Your task to perform on an android device: change your default location settings in chrome Image 0: 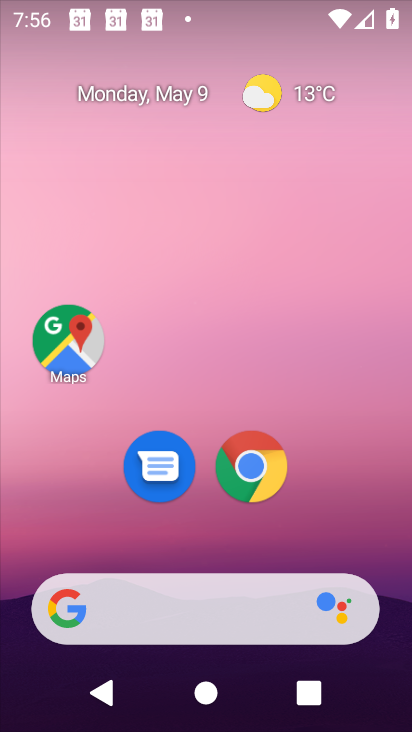
Step 0: drag from (329, 489) to (329, 232)
Your task to perform on an android device: change your default location settings in chrome Image 1: 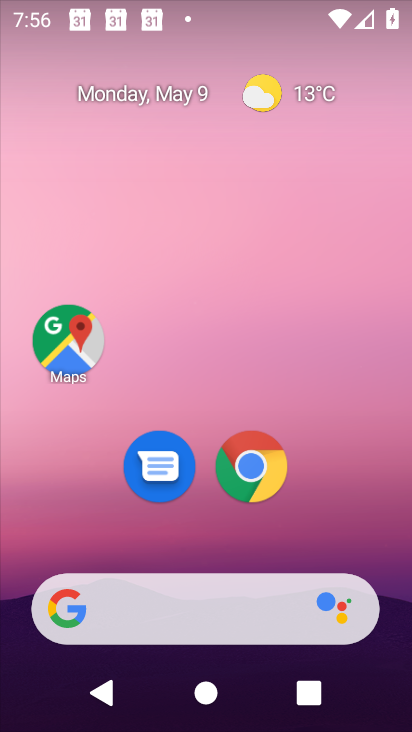
Step 1: drag from (334, 496) to (342, 323)
Your task to perform on an android device: change your default location settings in chrome Image 2: 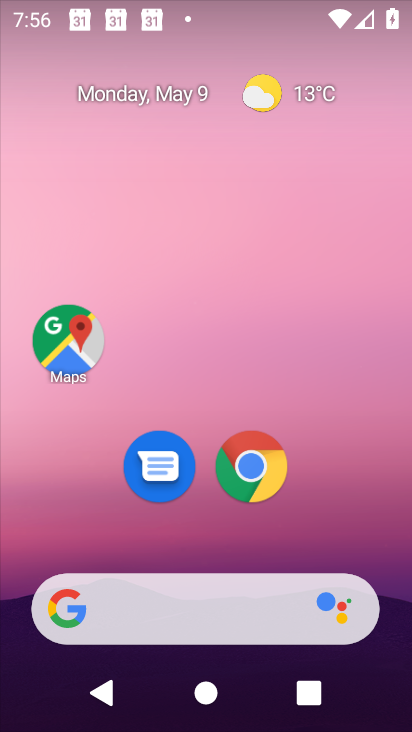
Step 2: drag from (215, 495) to (268, 95)
Your task to perform on an android device: change your default location settings in chrome Image 3: 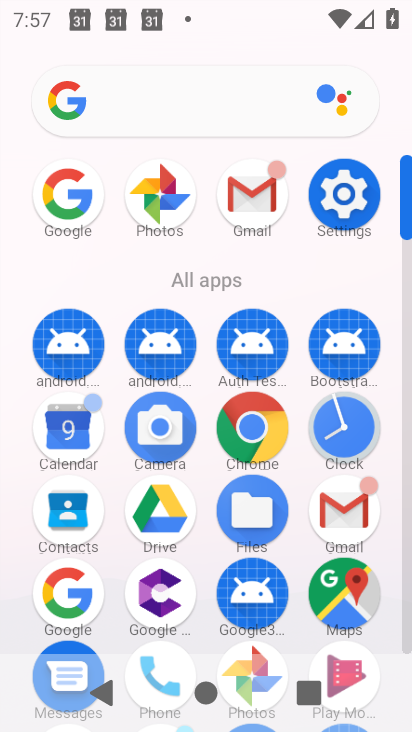
Step 3: click (230, 420)
Your task to perform on an android device: change your default location settings in chrome Image 4: 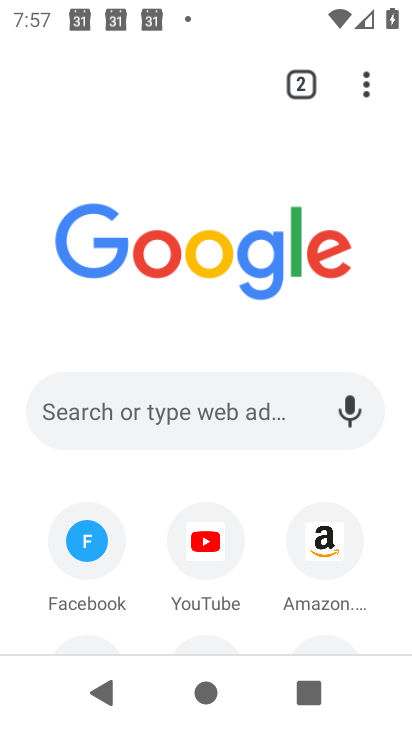
Step 4: click (355, 82)
Your task to perform on an android device: change your default location settings in chrome Image 5: 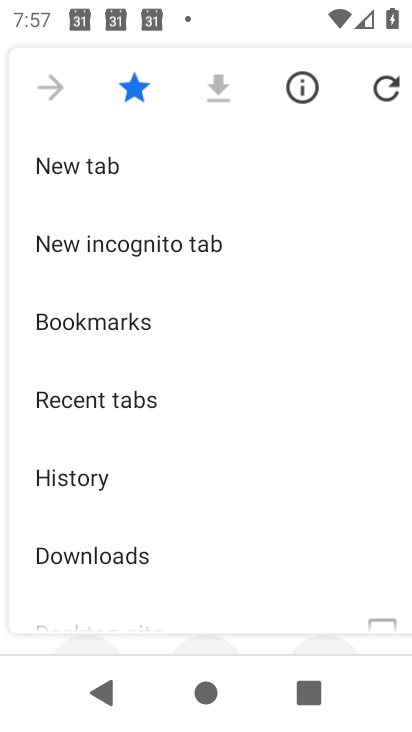
Step 5: drag from (170, 551) to (291, 298)
Your task to perform on an android device: change your default location settings in chrome Image 6: 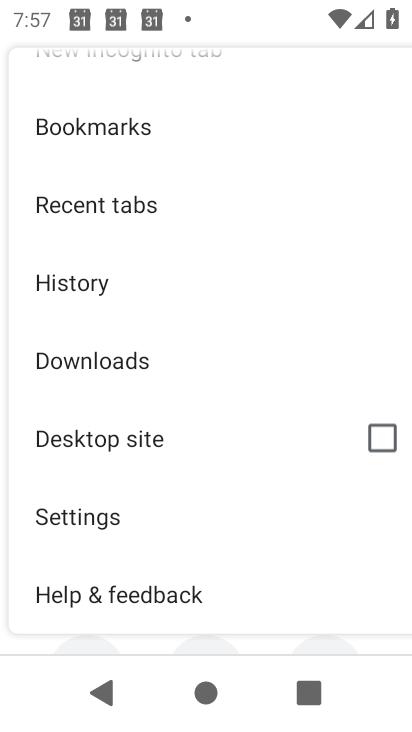
Step 6: click (83, 511)
Your task to perform on an android device: change your default location settings in chrome Image 7: 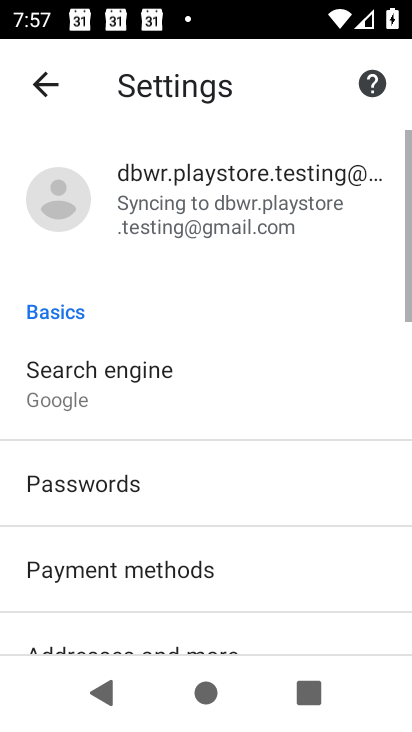
Step 7: drag from (172, 529) to (253, 157)
Your task to perform on an android device: change your default location settings in chrome Image 8: 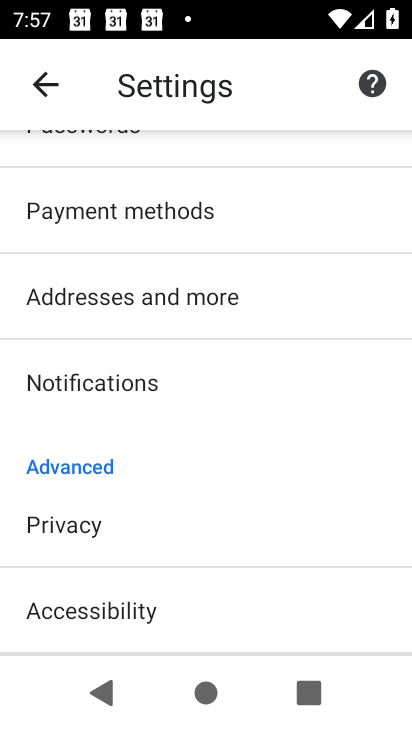
Step 8: drag from (196, 558) to (288, 152)
Your task to perform on an android device: change your default location settings in chrome Image 9: 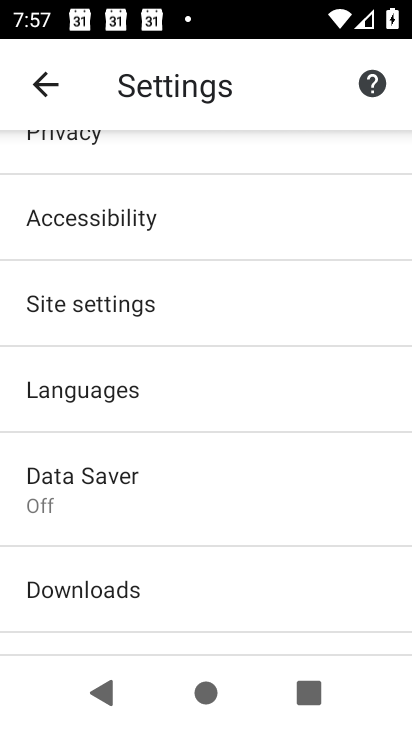
Step 9: click (107, 305)
Your task to perform on an android device: change your default location settings in chrome Image 10: 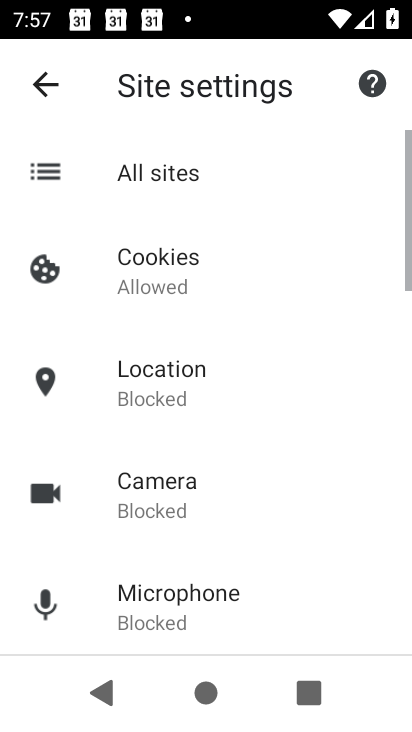
Step 10: click (179, 379)
Your task to perform on an android device: change your default location settings in chrome Image 11: 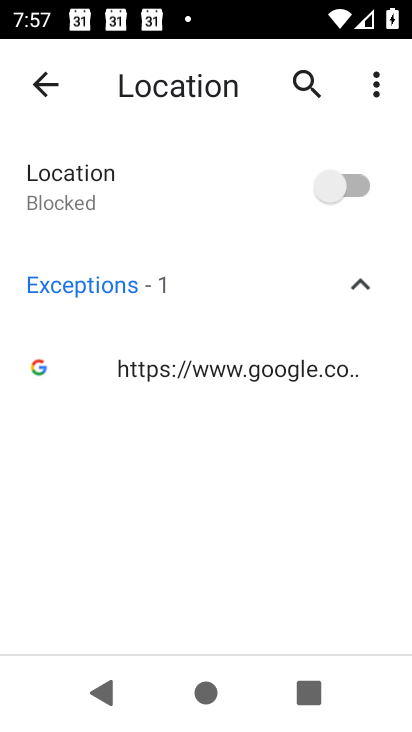
Step 11: click (342, 180)
Your task to perform on an android device: change your default location settings in chrome Image 12: 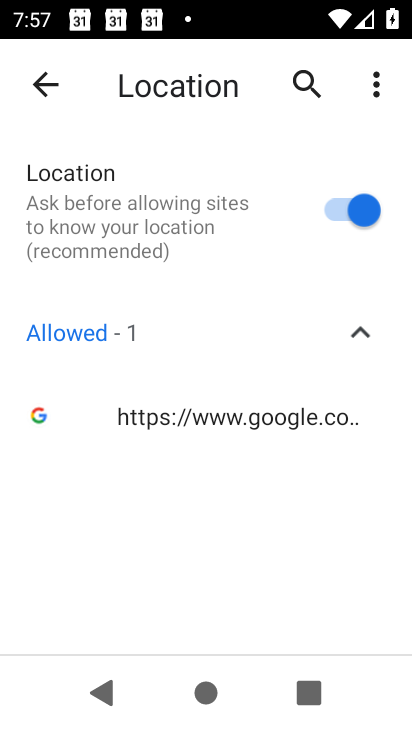
Step 12: task complete